Your task to perform on an android device: toggle translation in the chrome app Image 0: 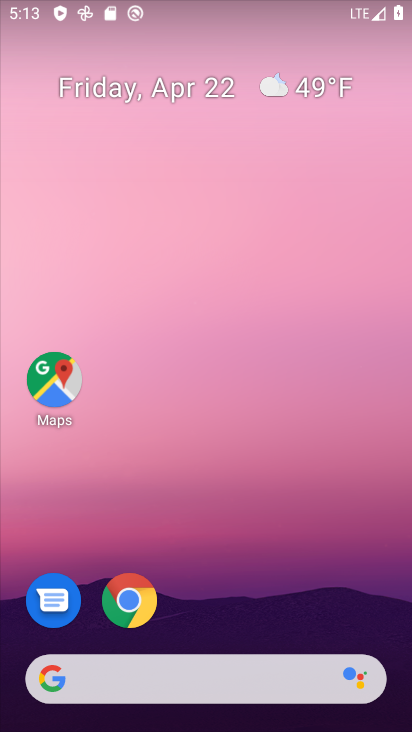
Step 0: click (132, 597)
Your task to perform on an android device: toggle translation in the chrome app Image 1: 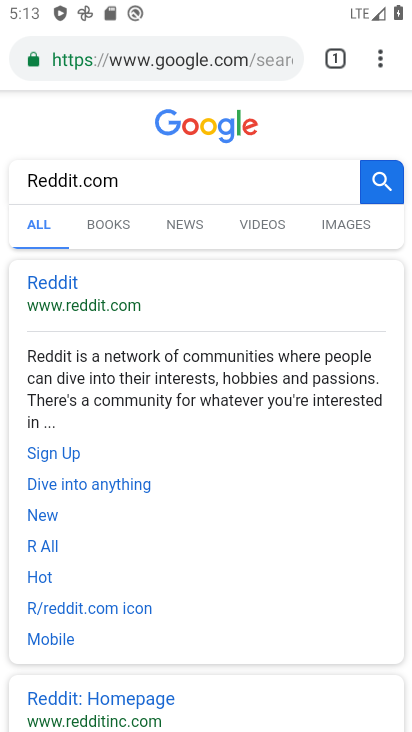
Step 1: click (381, 55)
Your task to perform on an android device: toggle translation in the chrome app Image 2: 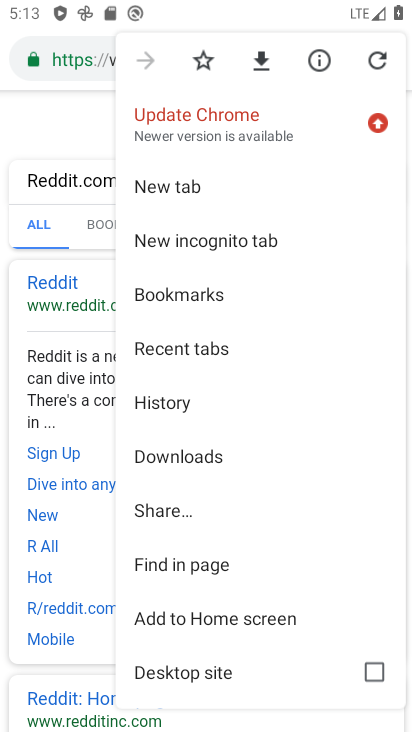
Step 2: drag from (250, 523) to (296, 407)
Your task to perform on an android device: toggle translation in the chrome app Image 3: 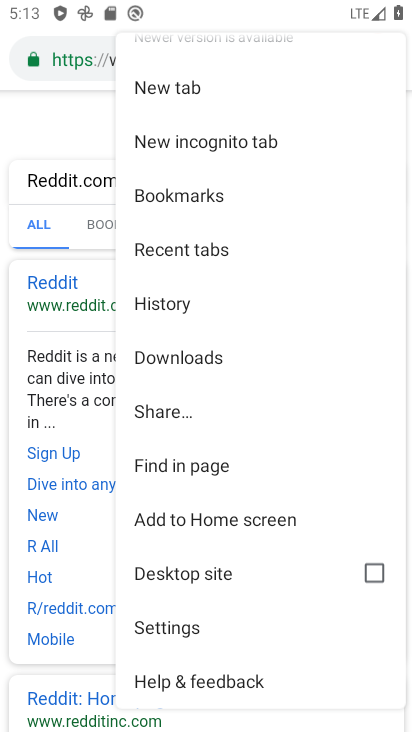
Step 3: drag from (224, 540) to (249, 468)
Your task to perform on an android device: toggle translation in the chrome app Image 4: 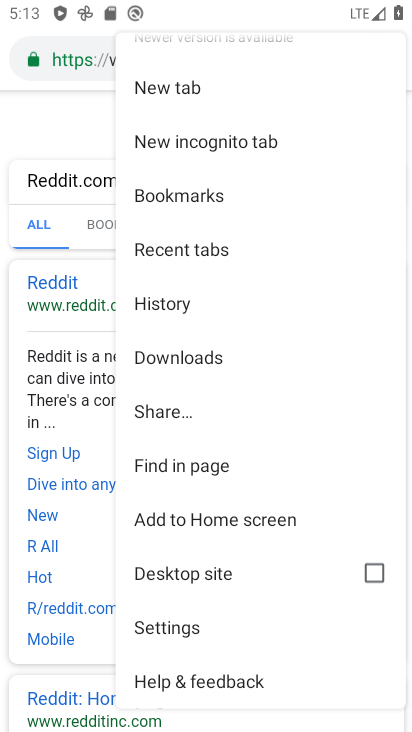
Step 4: click (181, 629)
Your task to perform on an android device: toggle translation in the chrome app Image 5: 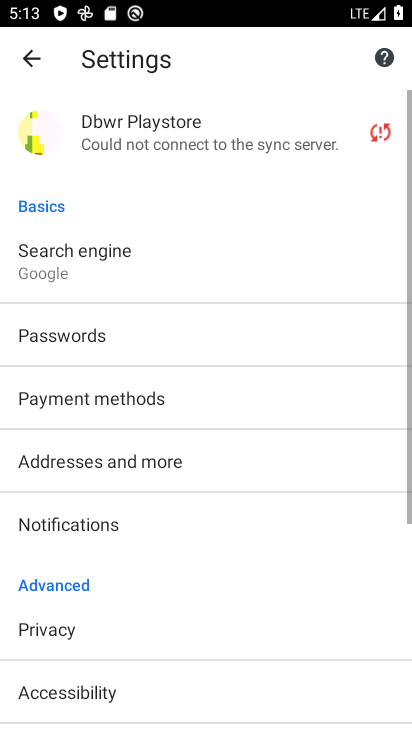
Step 5: drag from (168, 571) to (235, 465)
Your task to perform on an android device: toggle translation in the chrome app Image 6: 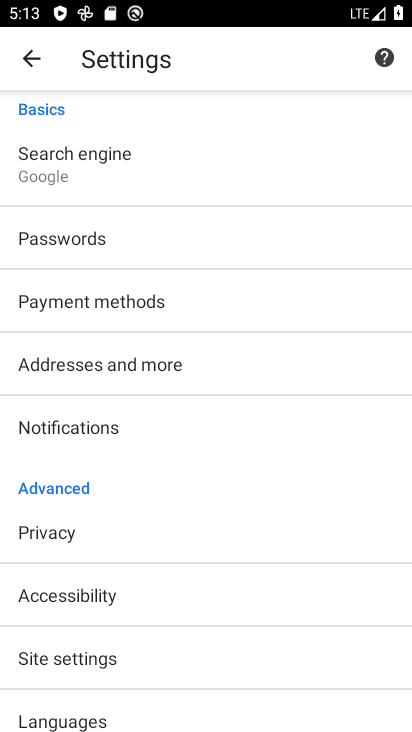
Step 6: drag from (144, 586) to (189, 504)
Your task to perform on an android device: toggle translation in the chrome app Image 7: 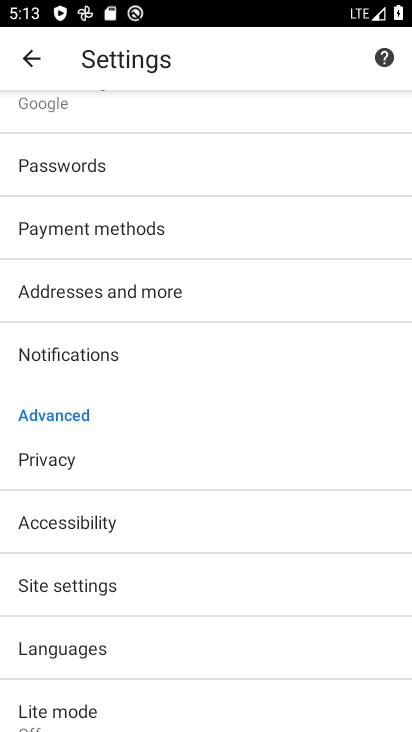
Step 7: drag from (172, 586) to (244, 494)
Your task to perform on an android device: toggle translation in the chrome app Image 8: 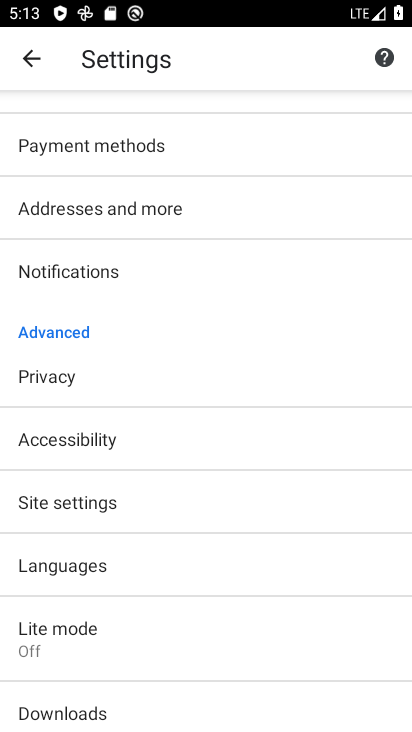
Step 8: click (80, 561)
Your task to perform on an android device: toggle translation in the chrome app Image 9: 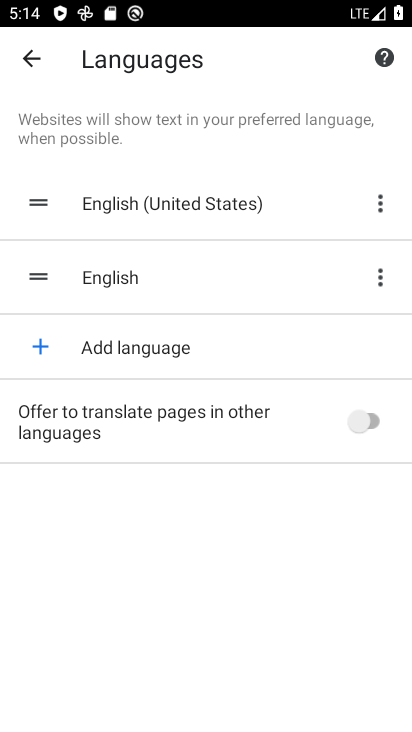
Step 9: click (365, 424)
Your task to perform on an android device: toggle translation in the chrome app Image 10: 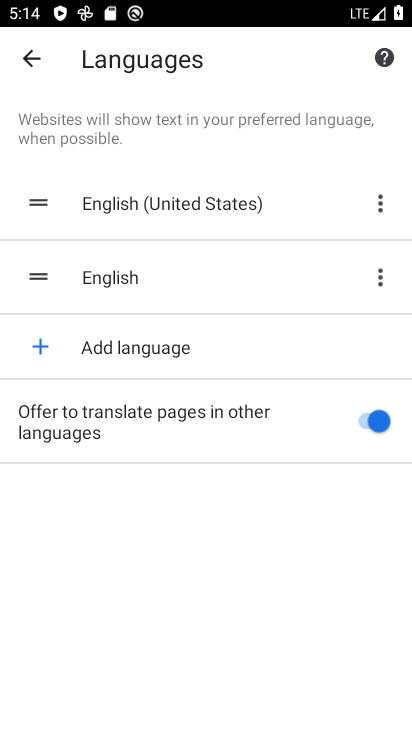
Step 10: task complete